Your task to perform on an android device: change the upload size in google photos Image 0: 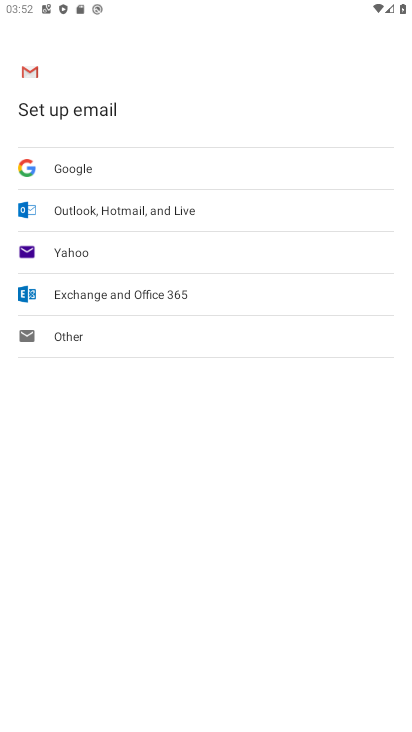
Step 0: press home button
Your task to perform on an android device: change the upload size in google photos Image 1: 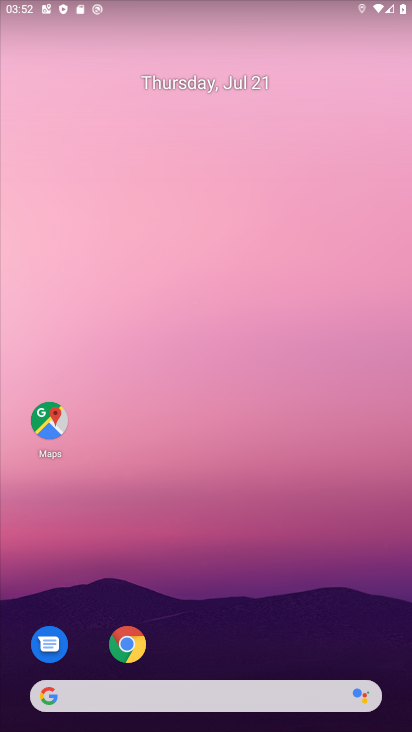
Step 1: drag from (230, 662) to (239, 46)
Your task to perform on an android device: change the upload size in google photos Image 2: 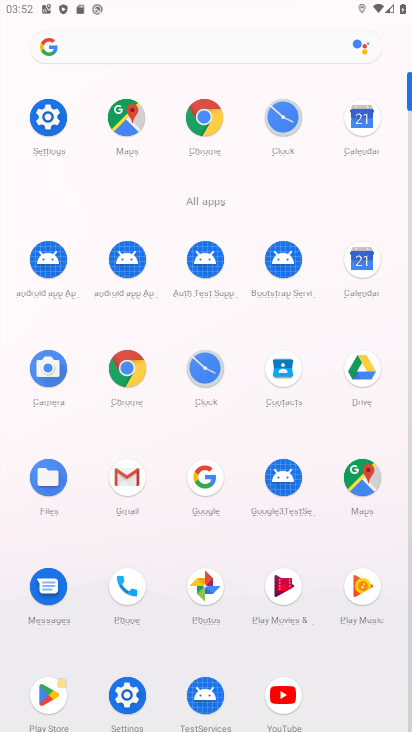
Step 2: click (203, 584)
Your task to perform on an android device: change the upload size in google photos Image 3: 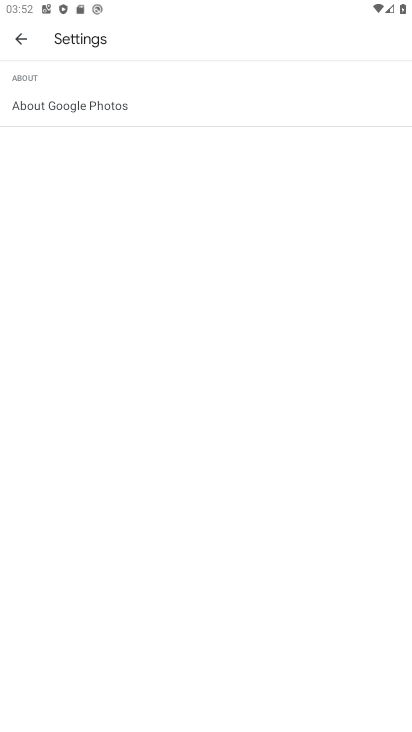
Step 3: click (19, 41)
Your task to perform on an android device: change the upload size in google photos Image 4: 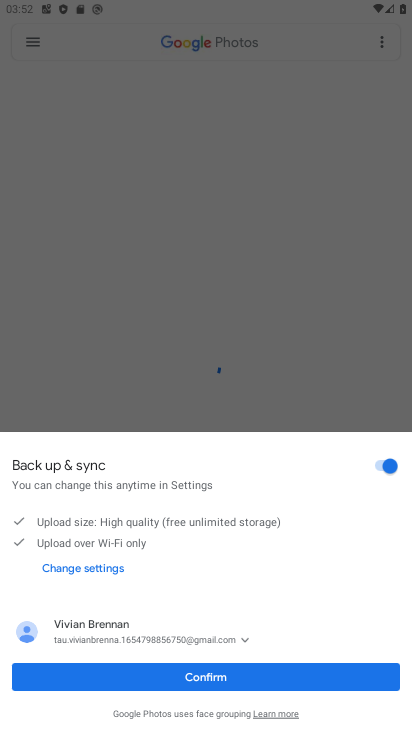
Step 4: click (210, 678)
Your task to perform on an android device: change the upload size in google photos Image 5: 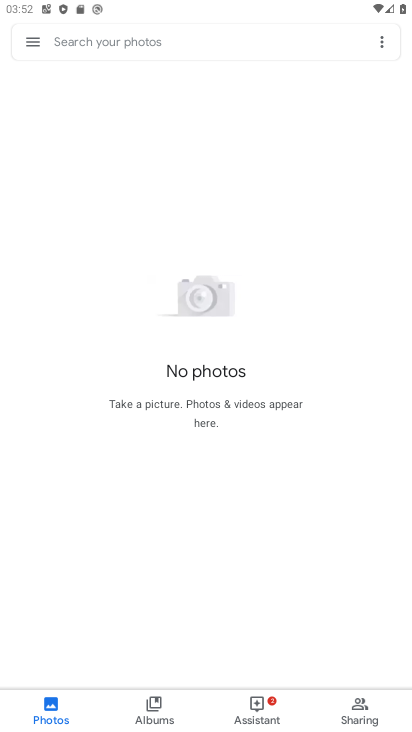
Step 5: click (29, 43)
Your task to perform on an android device: change the upload size in google photos Image 6: 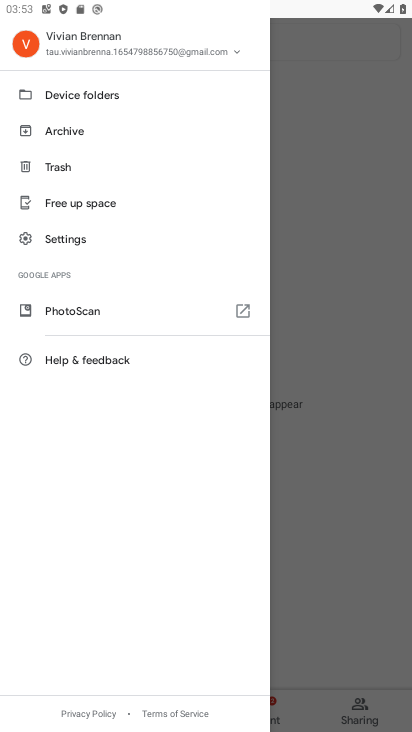
Step 6: click (74, 242)
Your task to perform on an android device: change the upload size in google photos Image 7: 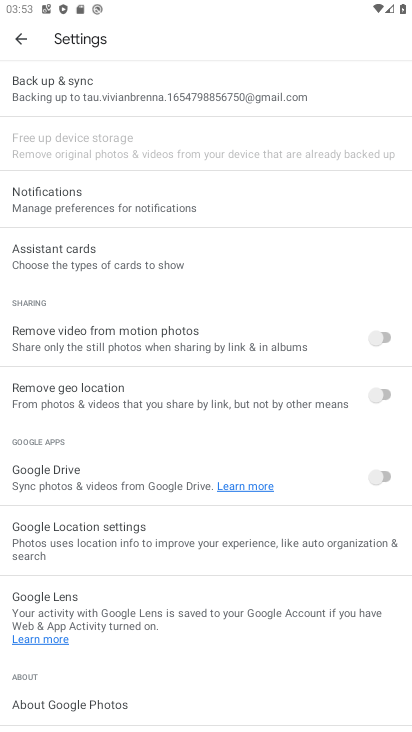
Step 7: click (78, 96)
Your task to perform on an android device: change the upload size in google photos Image 8: 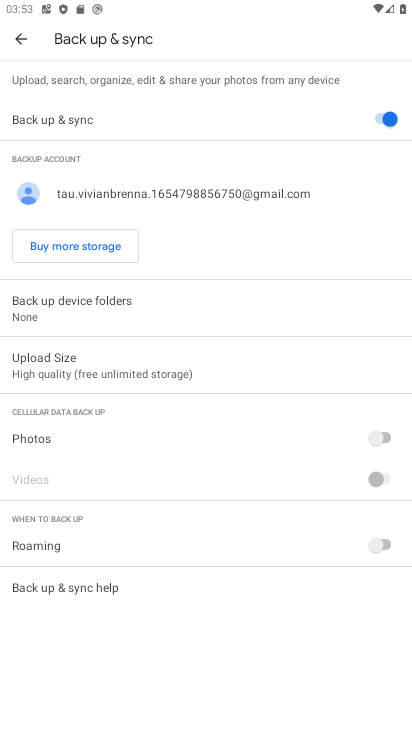
Step 8: click (88, 372)
Your task to perform on an android device: change the upload size in google photos Image 9: 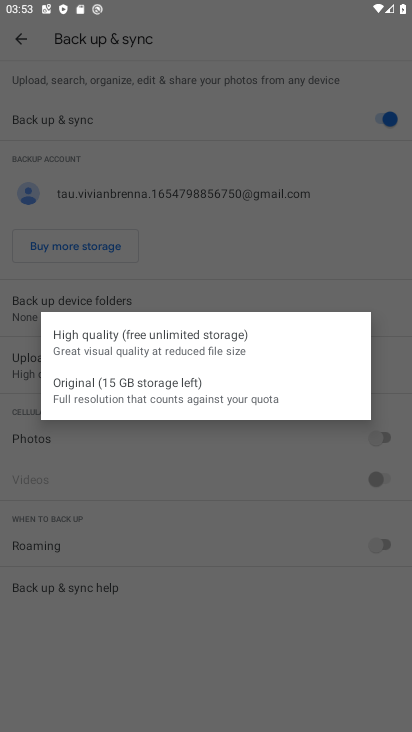
Step 9: click (90, 394)
Your task to perform on an android device: change the upload size in google photos Image 10: 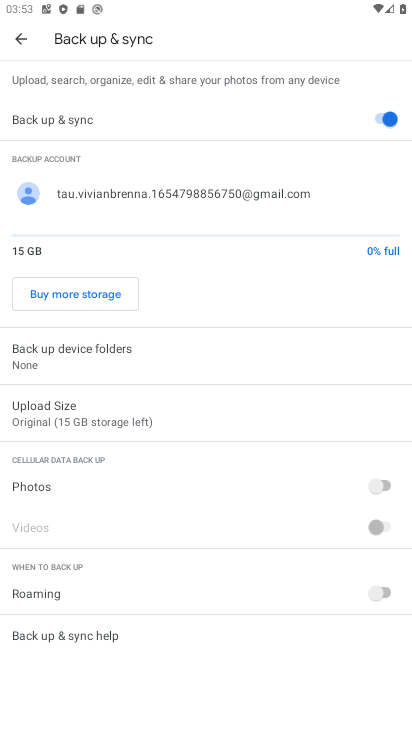
Step 10: task complete